Your task to perform on an android device: Check the weather Image 0: 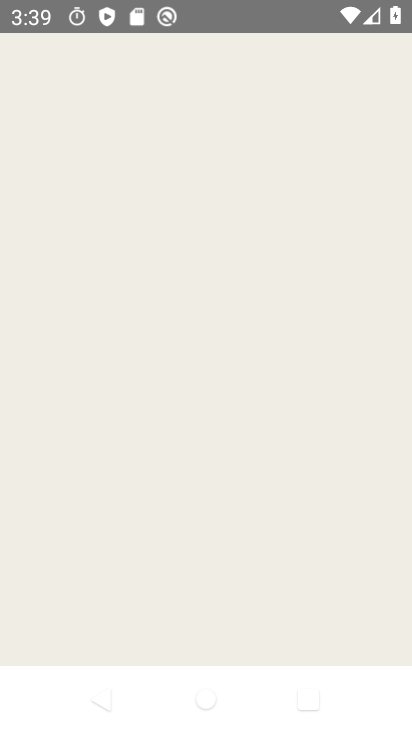
Step 0: drag from (291, 421) to (332, 81)
Your task to perform on an android device: Check the weather Image 1: 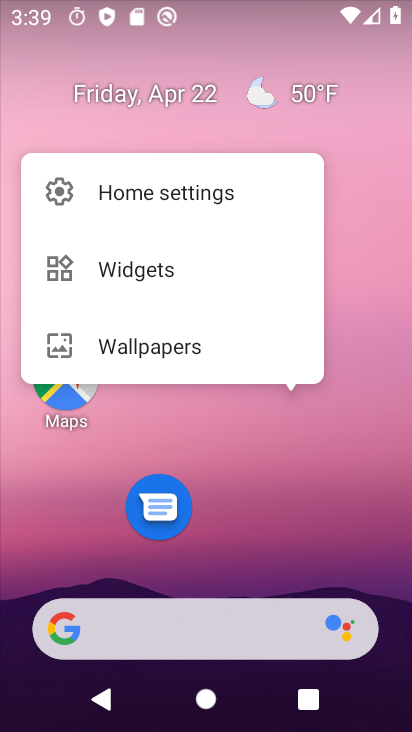
Step 1: click (317, 520)
Your task to perform on an android device: Check the weather Image 2: 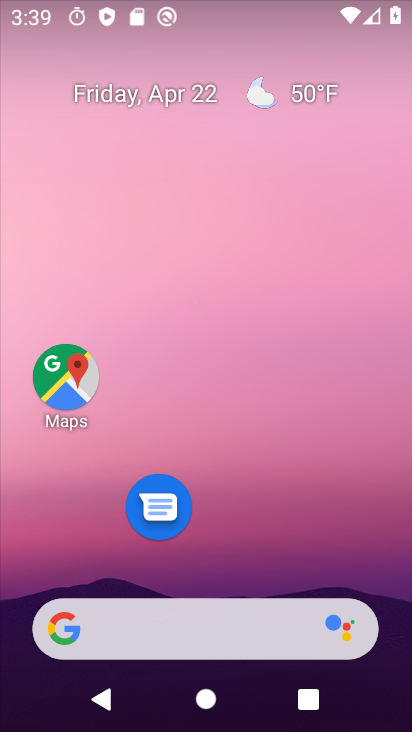
Step 2: click (259, 90)
Your task to perform on an android device: Check the weather Image 3: 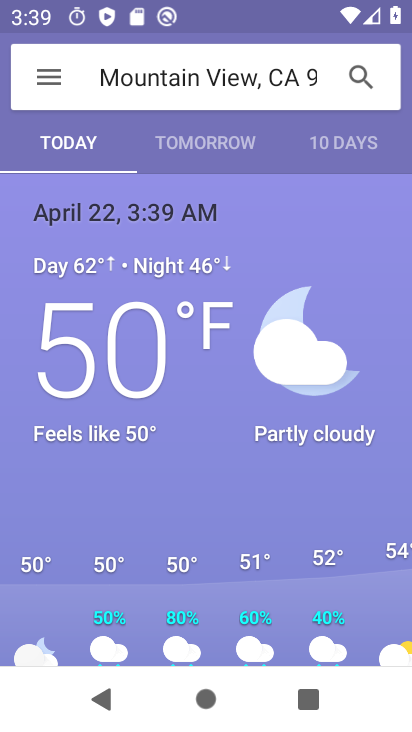
Step 3: task complete